Your task to perform on an android device: change your default location settings in chrome Image 0: 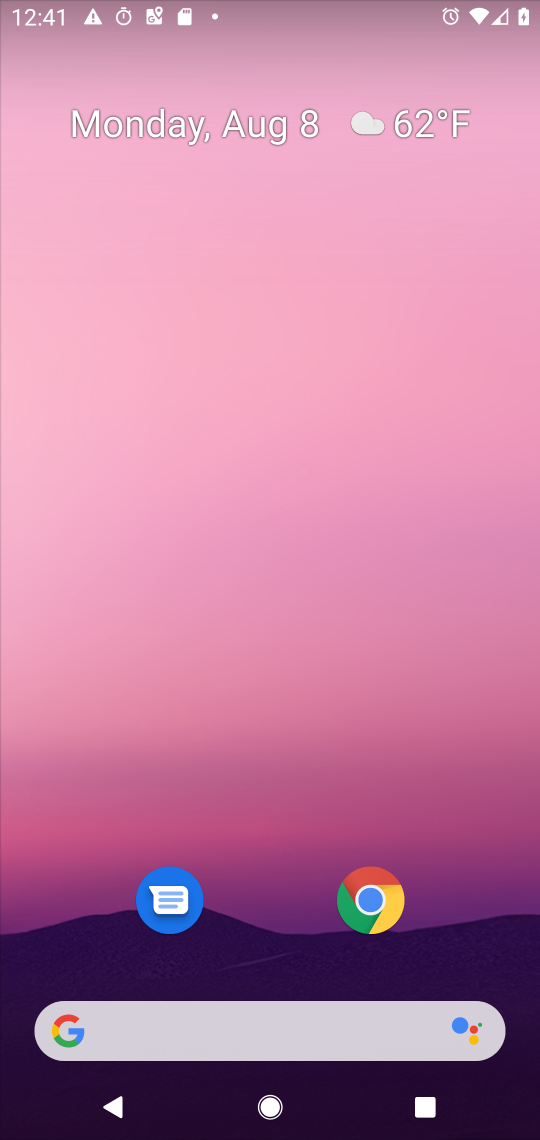
Step 0: press home button
Your task to perform on an android device: change your default location settings in chrome Image 1: 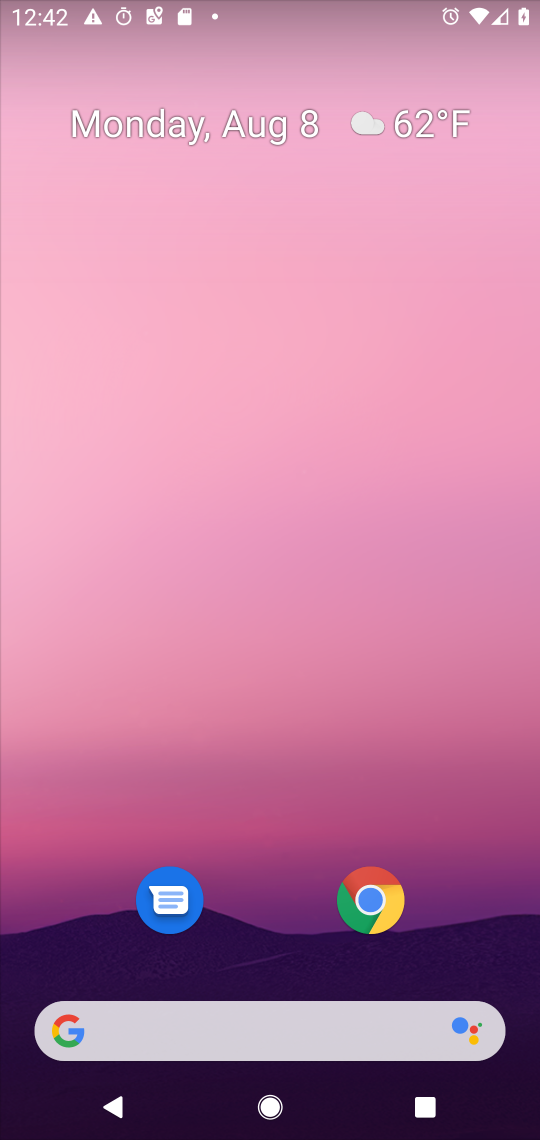
Step 1: drag from (272, 928) to (366, 149)
Your task to perform on an android device: change your default location settings in chrome Image 2: 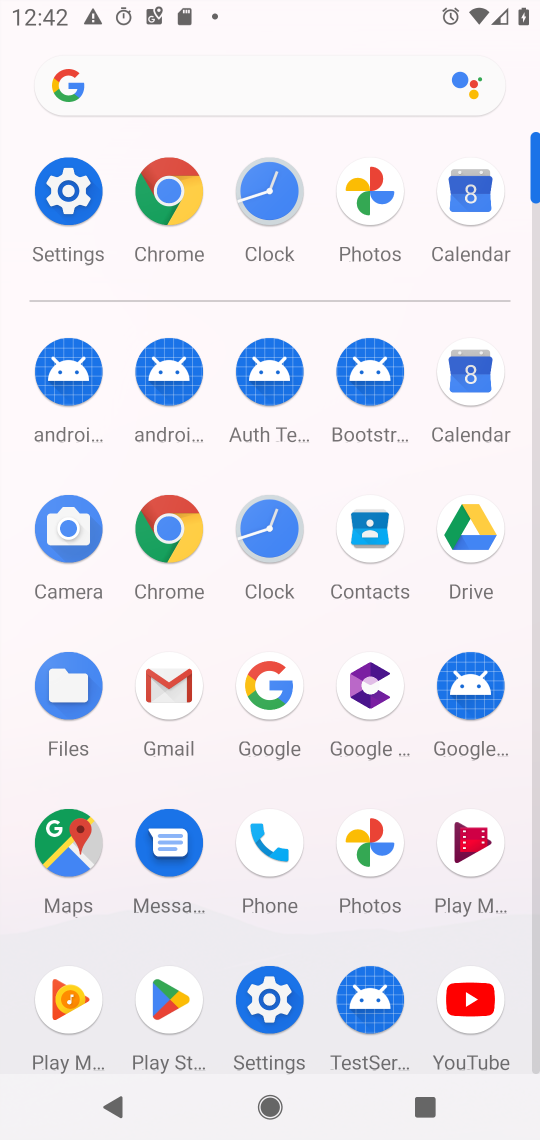
Step 2: click (162, 517)
Your task to perform on an android device: change your default location settings in chrome Image 3: 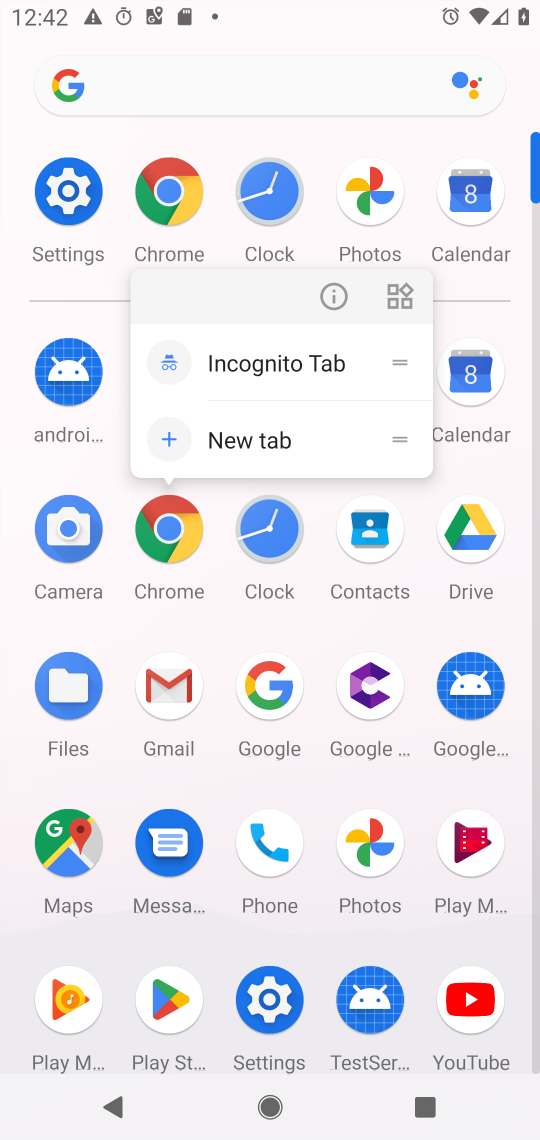
Step 3: click (164, 518)
Your task to perform on an android device: change your default location settings in chrome Image 4: 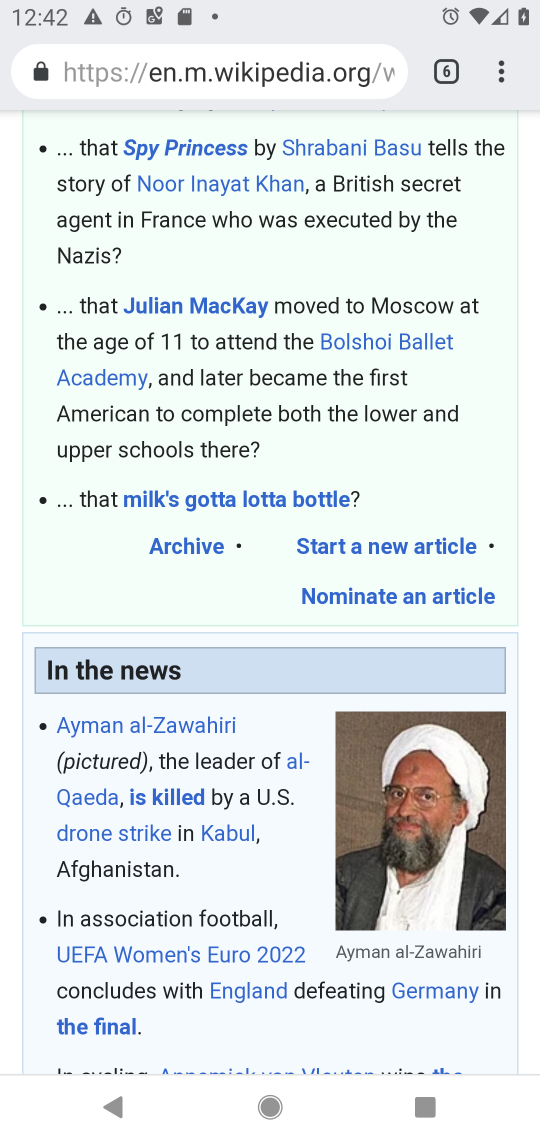
Step 4: click (496, 67)
Your task to perform on an android device: change your default location settings in chrome Image 5: 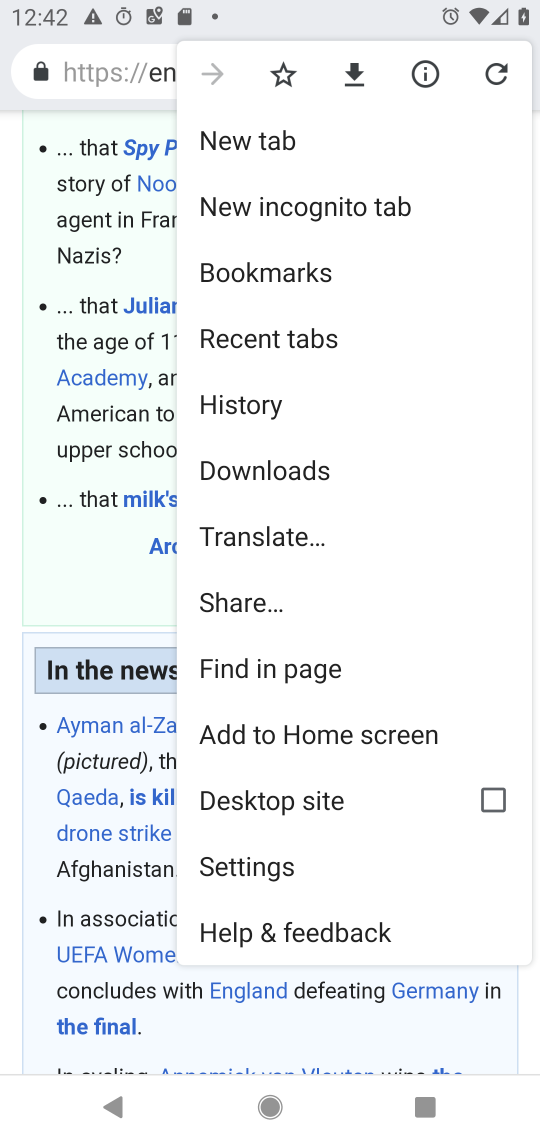
Step 5: click (301, 866)
Your task to perform on an android device: change your default location settings in chrome Image 6: 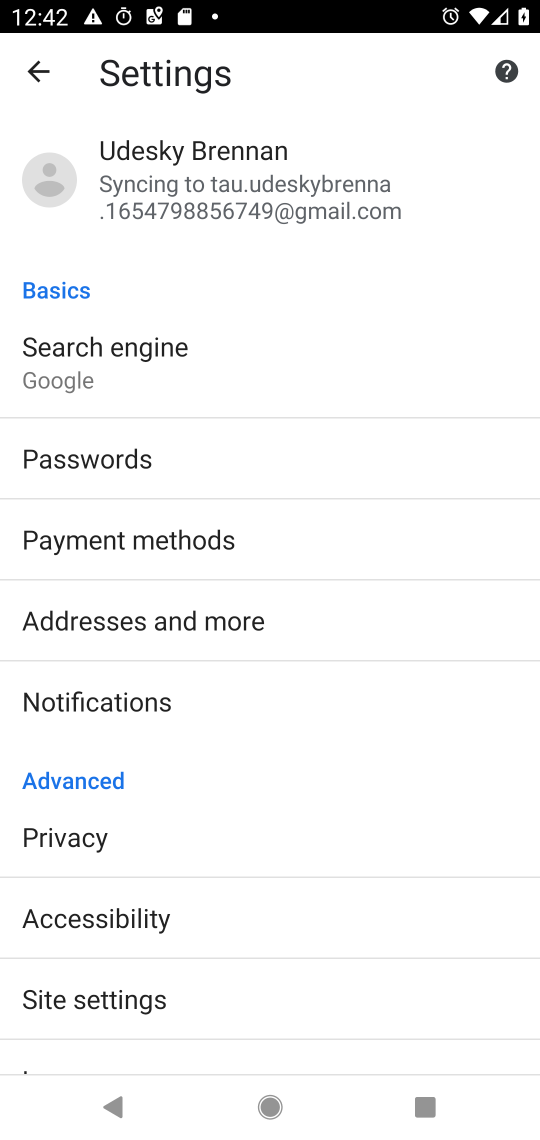
Step 6: drag from (262, 1008) to (357, 420)
Your task to perform on an android device: change your default location settings in chrome Image 7: 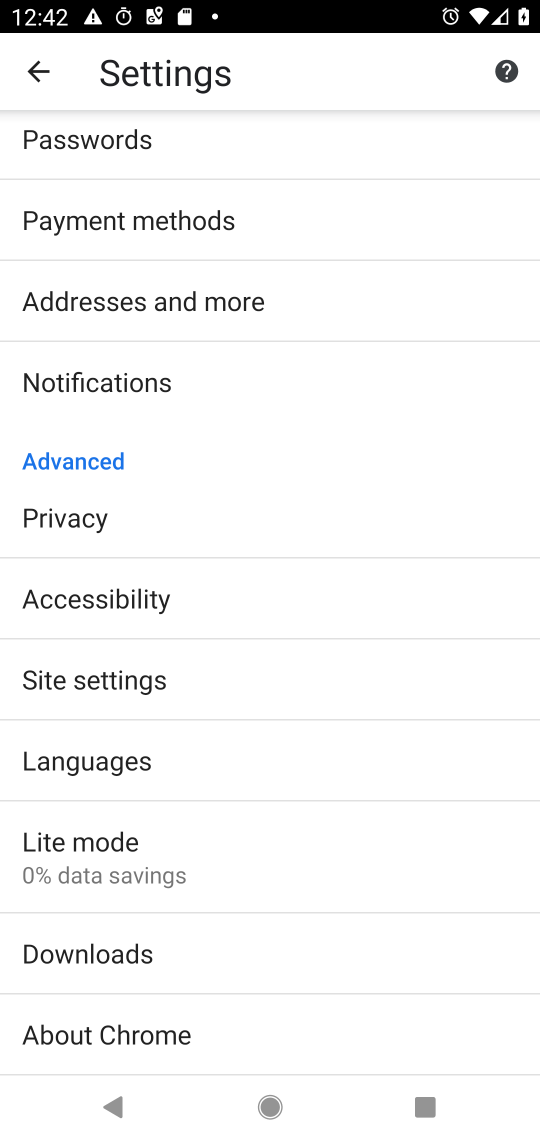
Step 7: click (198, 677)
Your task to perform on an android device: change your default location settings in chrome Image 8: 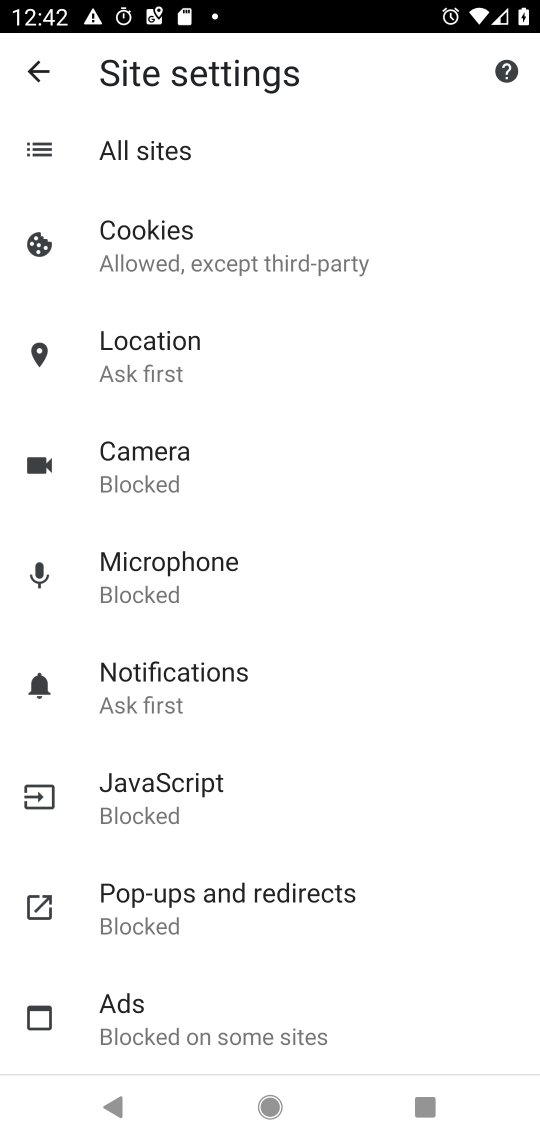
Step 8: click (205, 361)
Your task to perform on an android device: change your default location settings in chrome Image 9: 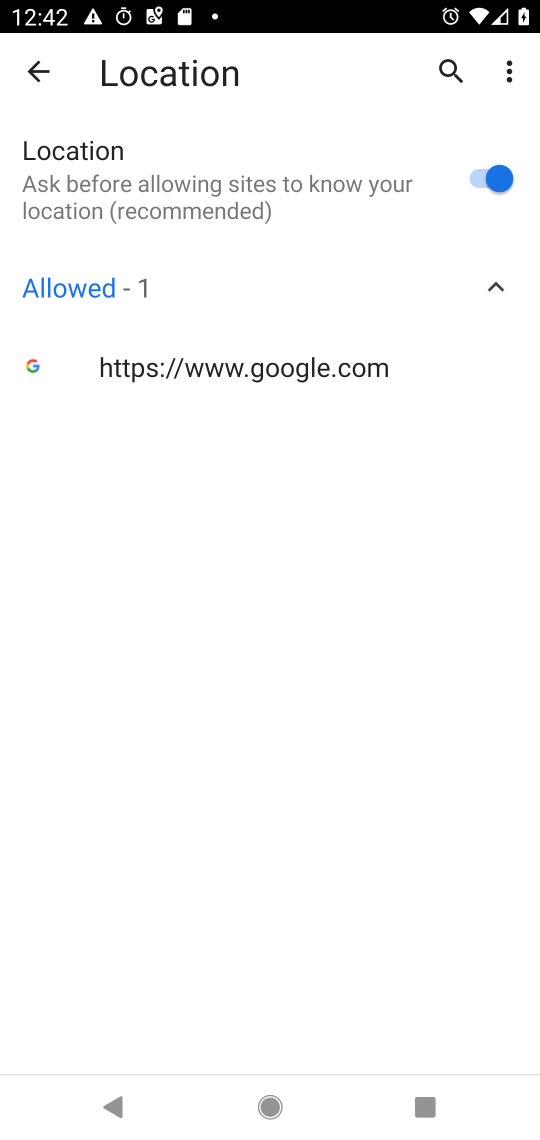
Step 9: task complete